Your task to perform on an android device: toggle sleep mode Image 0: 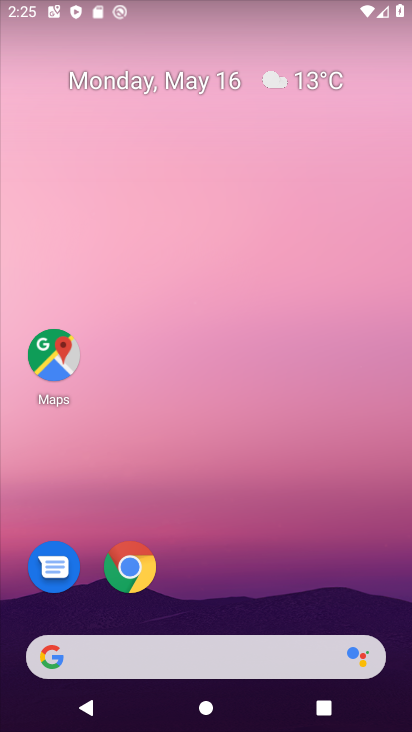
Step 0: drag from (208, 604) to (251, 66)
Your task to perform on an android device: toggle sleep mode Image 1: 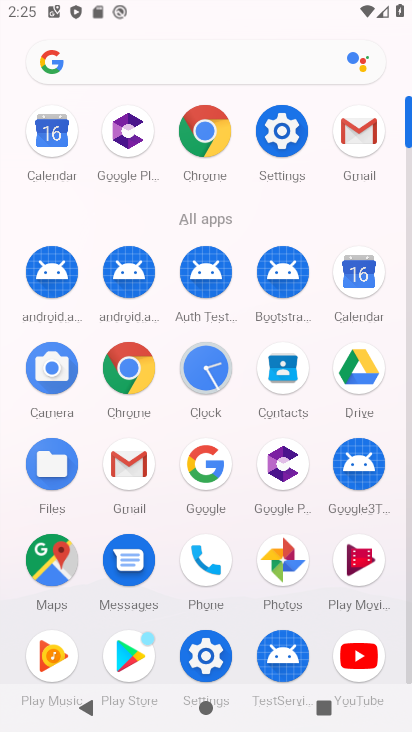
Step 1: click (276, 138)
Your task to perform on an android device: toggle sleep mode Image 2: 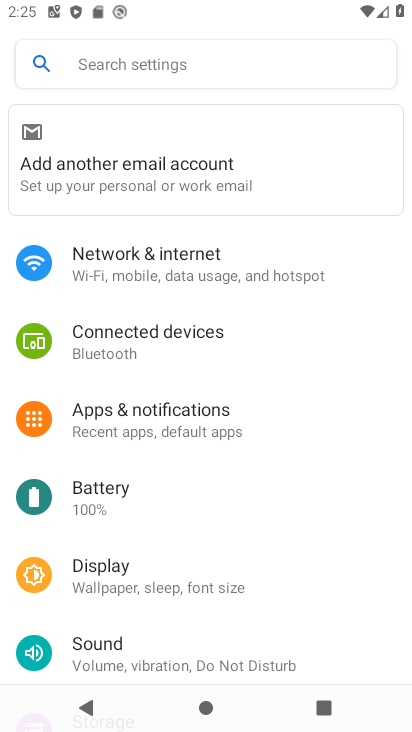
Step 2: click (148, 586)
Your task to perform on an android device: toggle sleep mode Image 3: 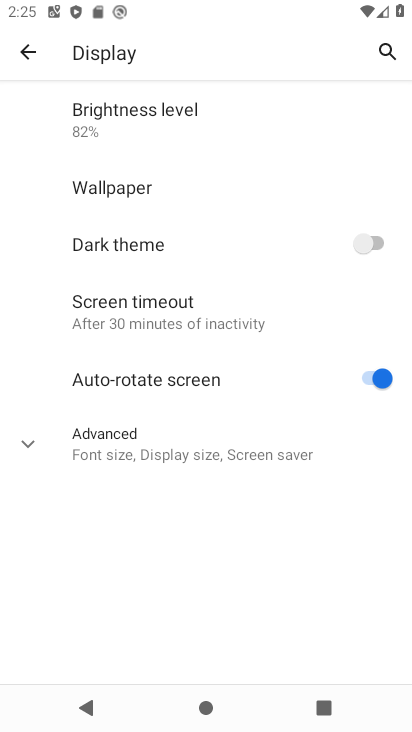
Step 3: click (160, 302)
Your task to perform on an android device: toggle sleep mode Image 4: 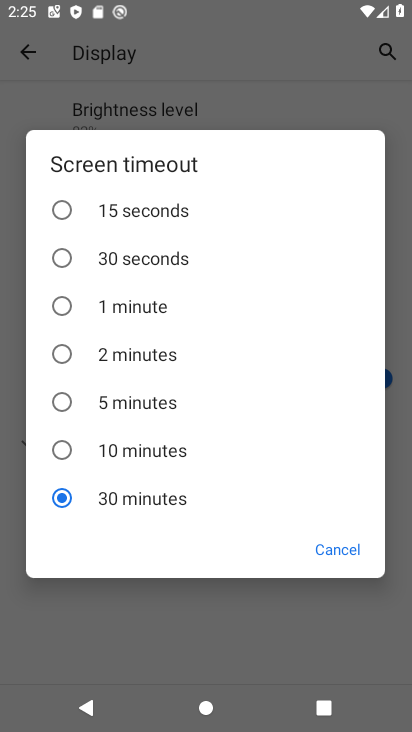
Step 4: click (125, 453)
Your task to perform on an android device: toggle sleep mode Image 5: 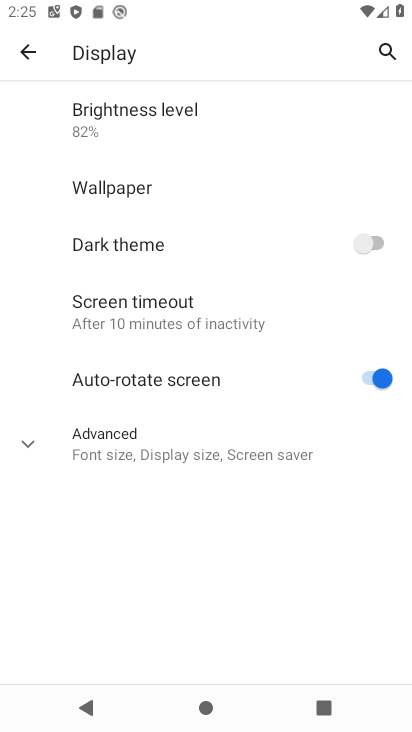
Step 5: task complete